Your task to perform on an android device: Open ESPN.com Image 0: 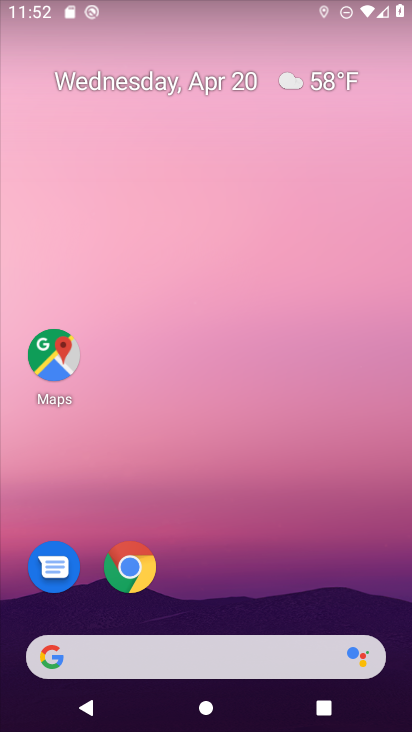
Step 0: click (121, 569)
Your task to perform on an android device: Open ESPN.com Image 1: 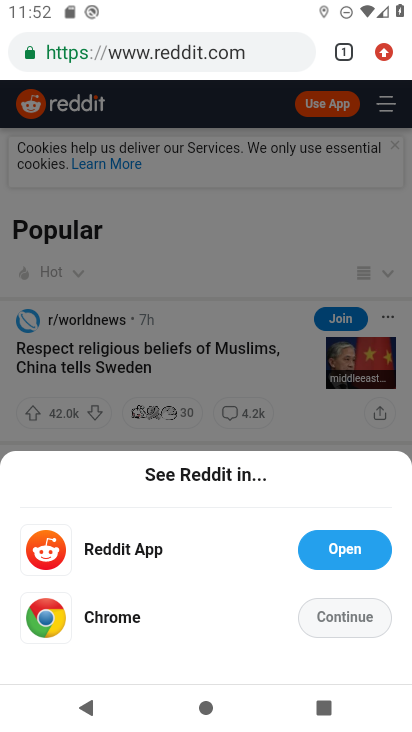
Step 1: press back button
Your task to perform on an android device: Open ESPN.com Image 2: 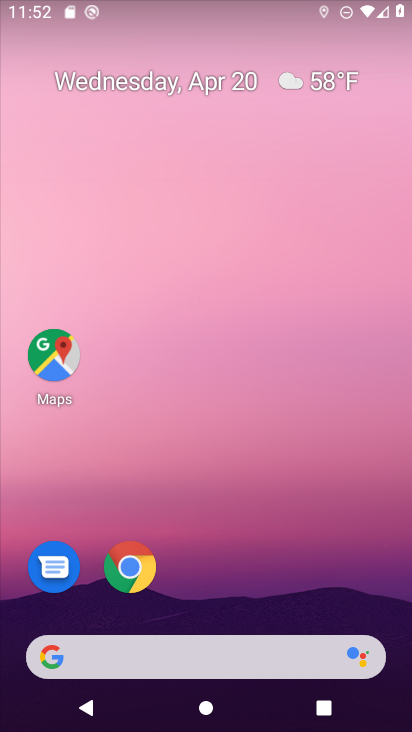
Step 2: click (125, 563)
Your task to perform on an android device: Open ESPN.com Image 3: 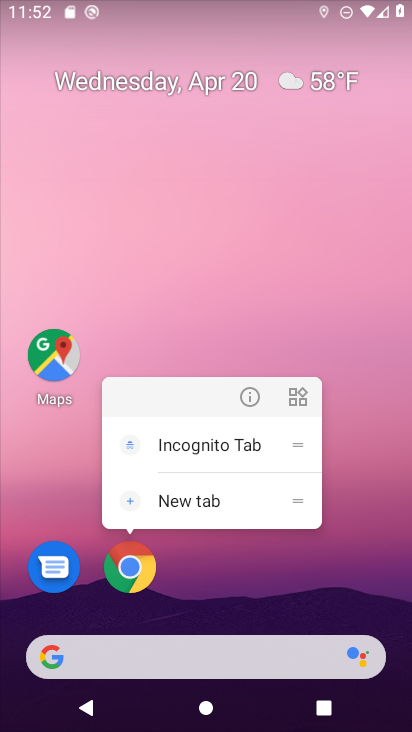
Step 3: click (131, 575)
Your task to perform on an android device: Open ESPN.com Image 4: 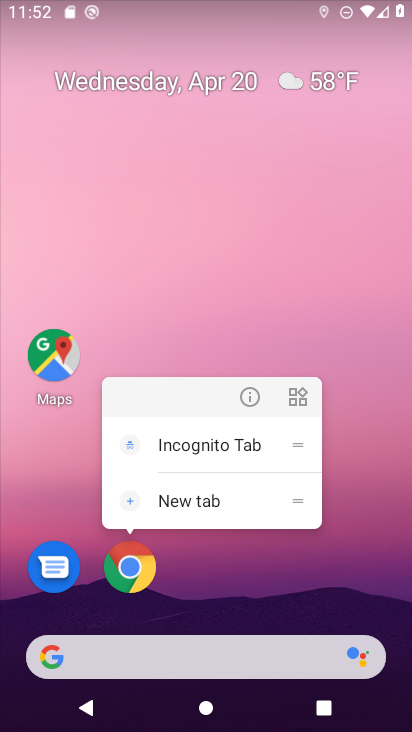
Step 4: click (135, 586)
Your task to perform on an android device: Open ESPN.com Image 5: 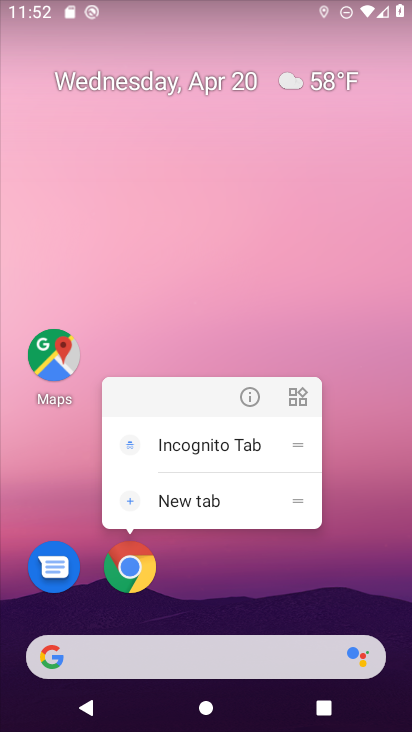
Step 5: click (110, 575)
Your task to perform on an android device: Open ESPN.com Image 6: 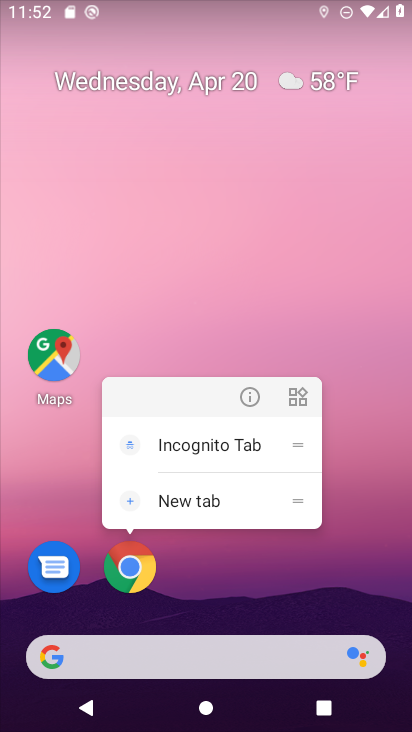
Step 6: click (140, 569)
Your task to perform on an android device: Open ESPN.com Image 7: 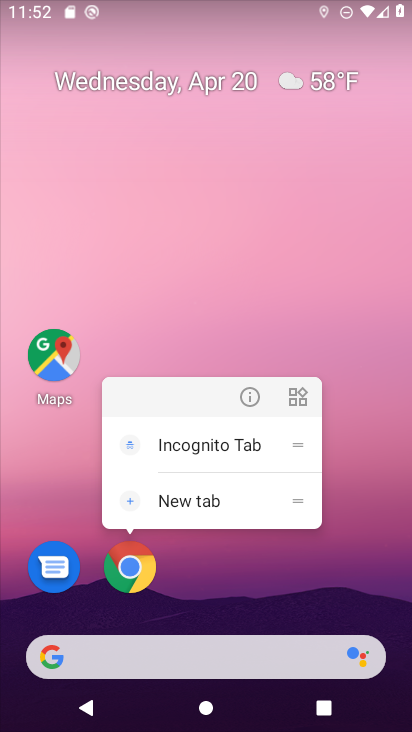
Step 7: click (140, 565)
Your task to perform on an android device: Open ESPN.com Image 8: 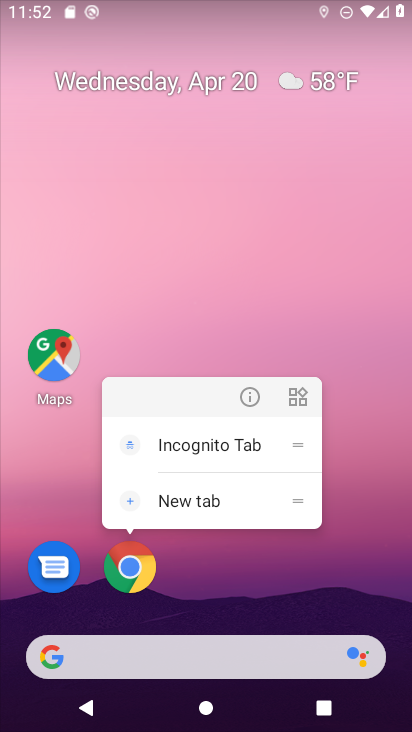
Step 8: click (140, 565)
Your task to perform on an android device: Open ESPN.com Image 9: 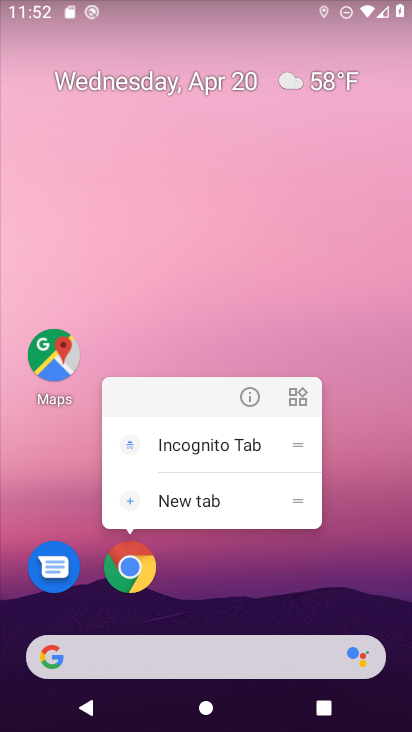
Step 9: click (131, 571)
Your task to perform on an android device: Open ESPN.com Image 10: 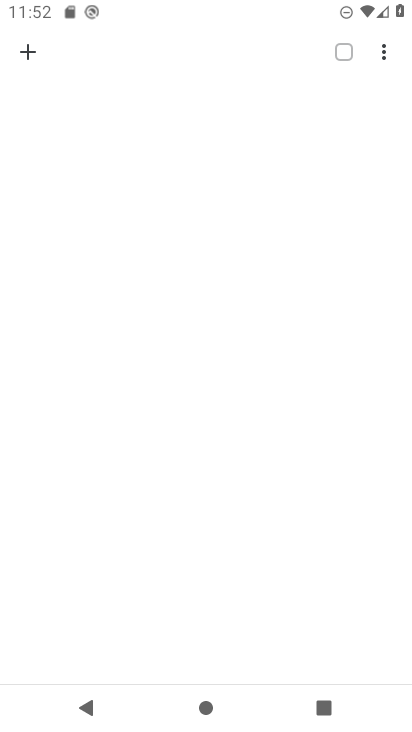
Step 10: click (29, 63)
Your task to perform on an android device: Open ESPN.com Image 11: 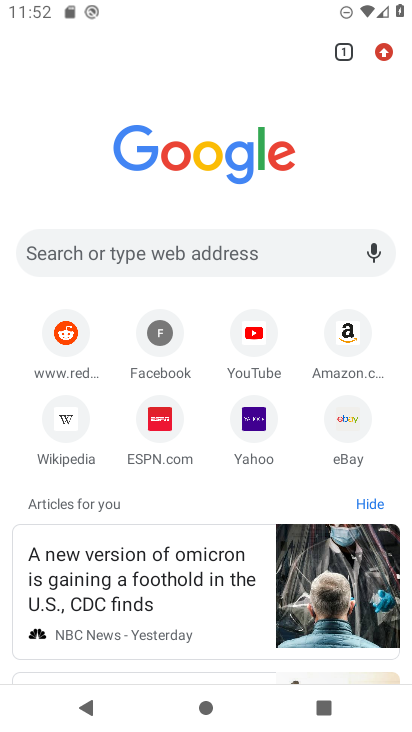
Step 11: click (139, 421)
Your task to perform on an android device: Open ESPN.com Image 12: 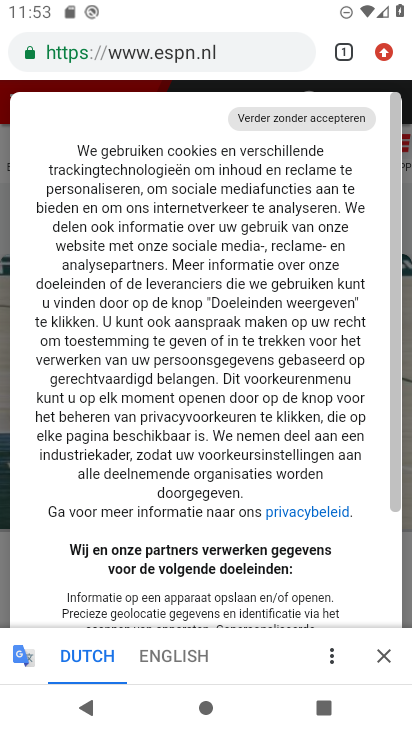
Step 12: click (385, 655)
Your task to perform on an android device: Open ESPN.com Image 13: 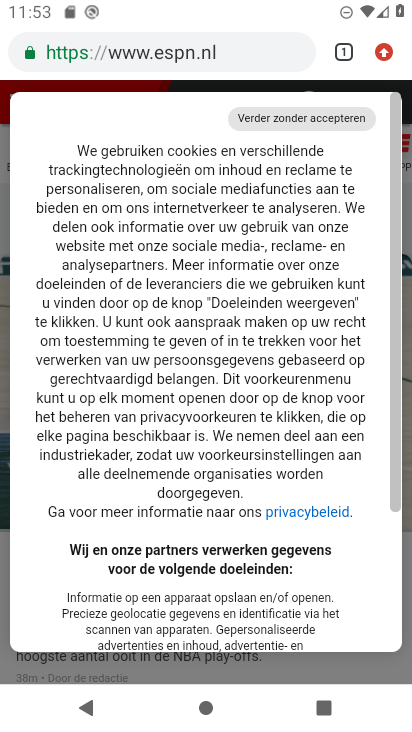
Step 13: task complete